Your task to perform on an android device: Is it going to rain this weekend? Image 0: 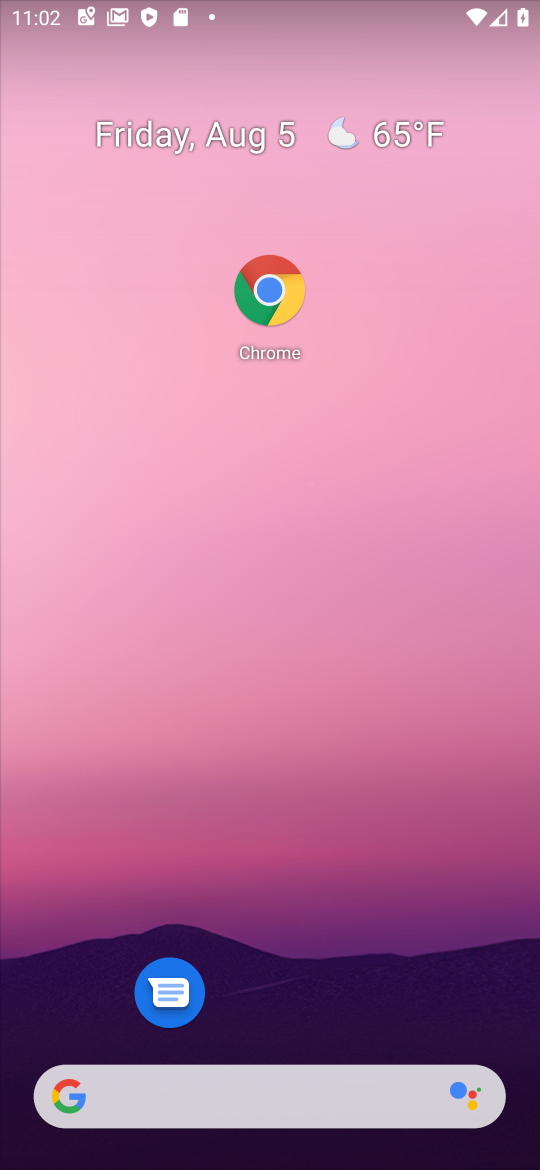
Step 0: drag from (367, 624) to (388, 136)
Your task to perform on an android device: Is it going to rain this weekend? Image 1: 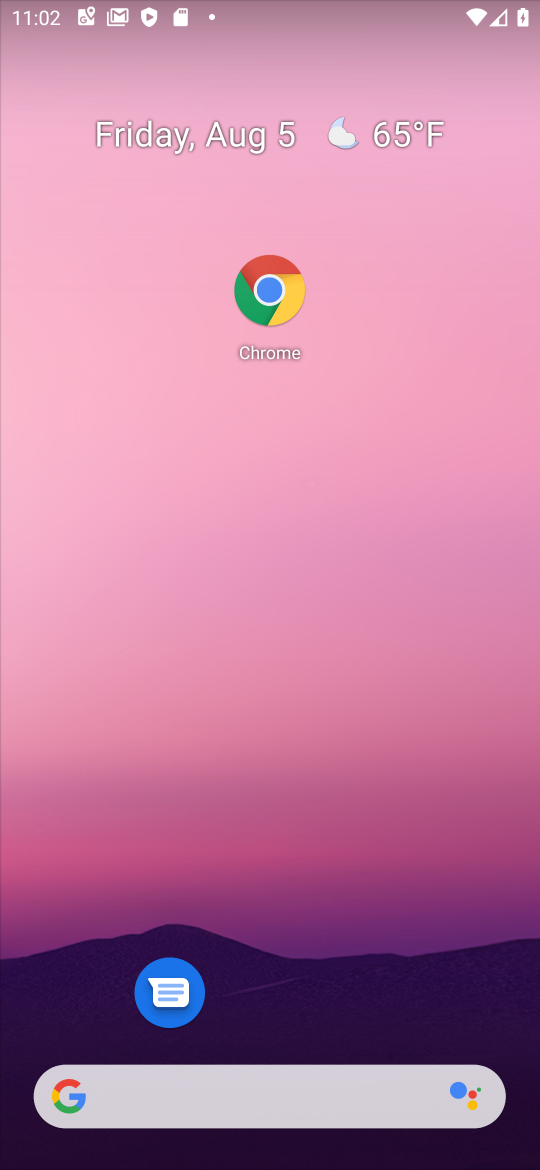
Step 1: drag from (294, 924) to (184, 291)
Your task to perform on an android device: Is it going to rain this weekend? Image 2: 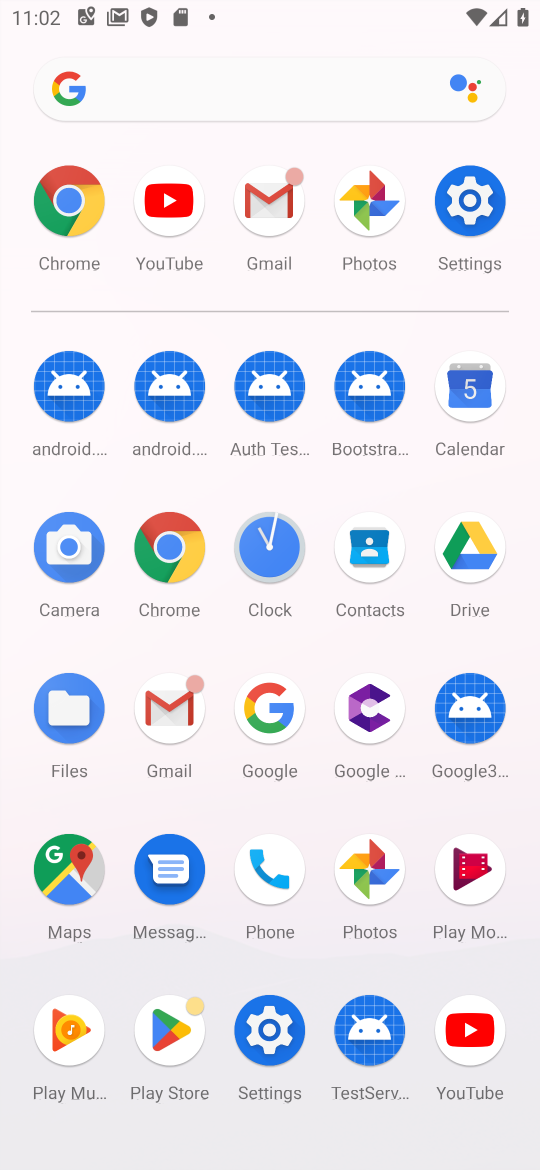
Step 2: click (253, 706)
Your task to perform on an android device: Is it going to rain this weekend? Image 3: 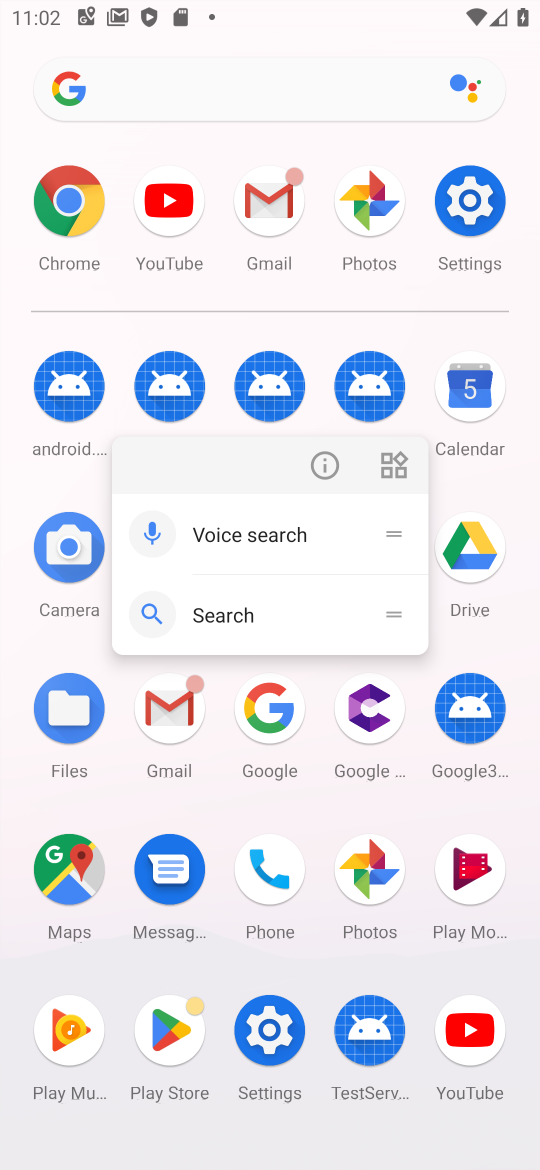
Step 3: click (257, 707)
Your task to perform on an android device: Is it going to rain this weekend? Image 4: 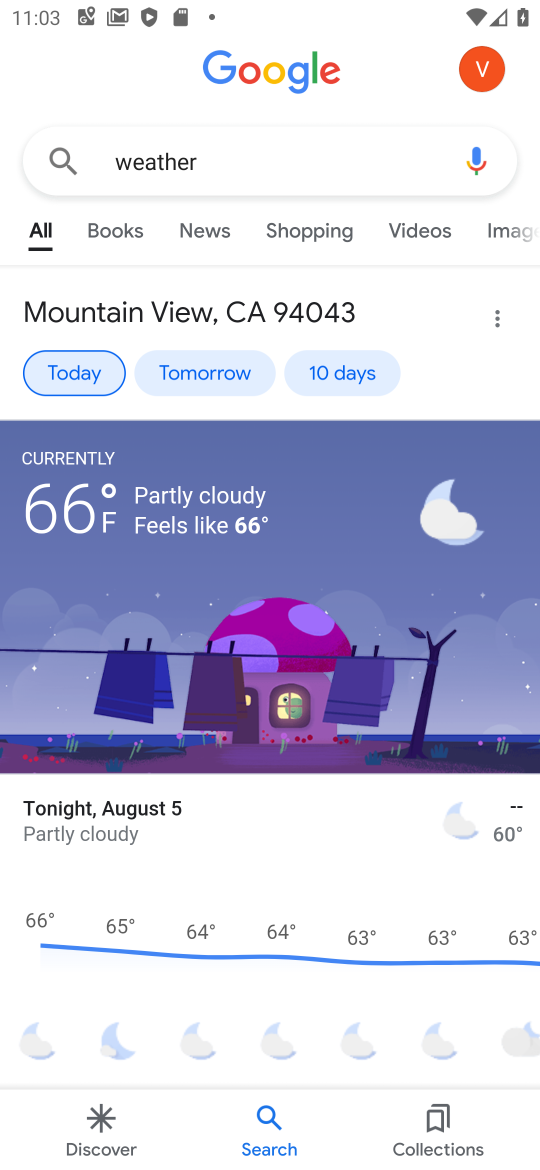
Step 4: task complete